Your task to perform on an android device: Search for Italian restaurants on Maps Image 0: 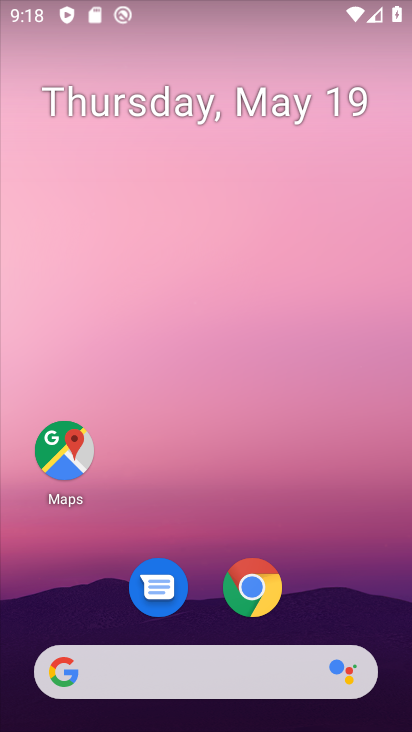
Step 0: drag from (169, 687) to (218, 176)
Your task to perform on an android device: Search for Italian restaurants on Maps Image 1: 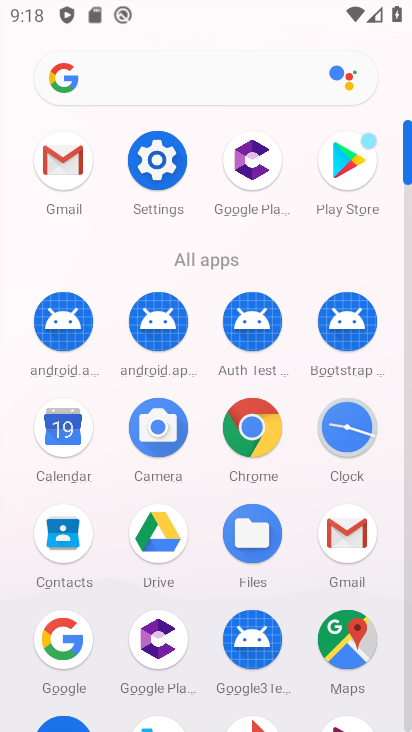
Step 1: click (334, 637)
Your task to perform on an android device: Search for Italian restaurants on Maps Image 2: 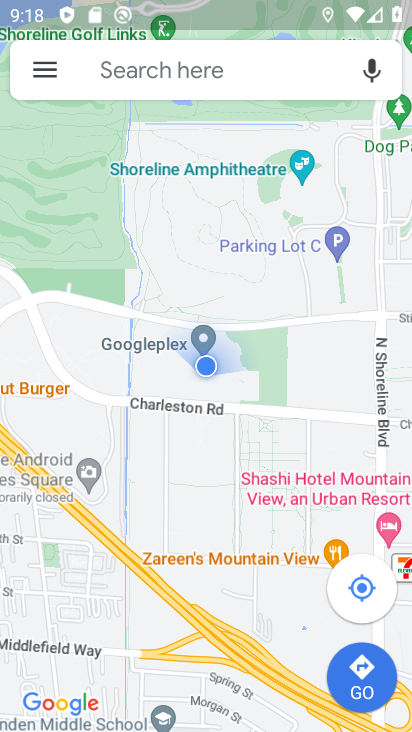
Step 2: click (205, 71)
Your task to perform on an android device: Search for Italian restaurants on Maps Image 3: 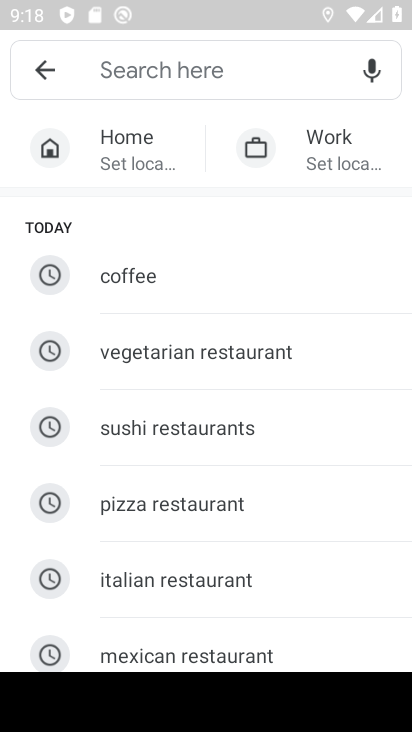
Step 3: click (210, 578)
Your task to perform on an android device: Search for Italian restaurants on Maps Image 4: 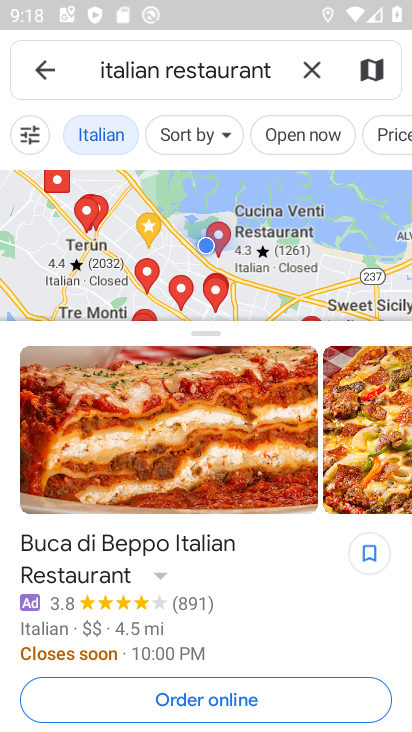
Step 4: task complete